Your task to perform on an android device: snooze an email in the gmail app Image 0: 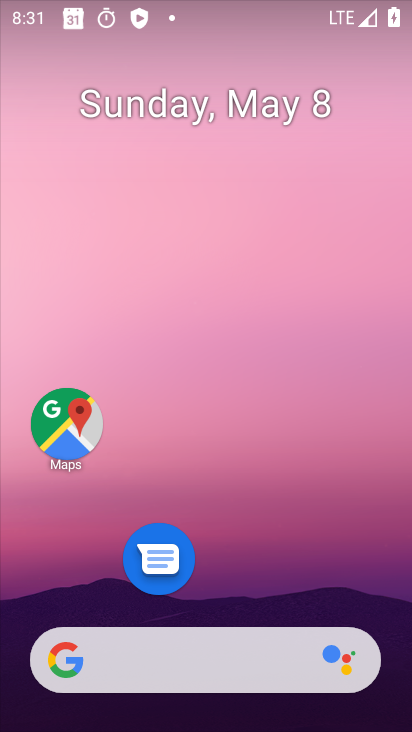
Step 0: click (411, 563)
Your task to perform on an android device: snooze an email in the gmail app Image 1: 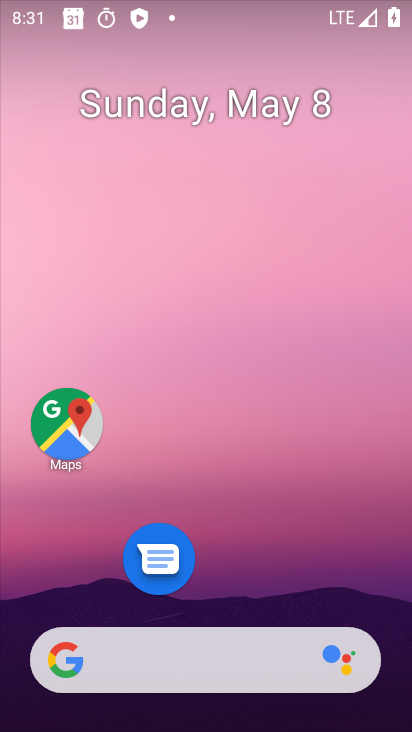
Step 1: drag from (339, 667) to (308, 3)
Your task to perform on an android device: snooze an email in the gmail app Image 2: 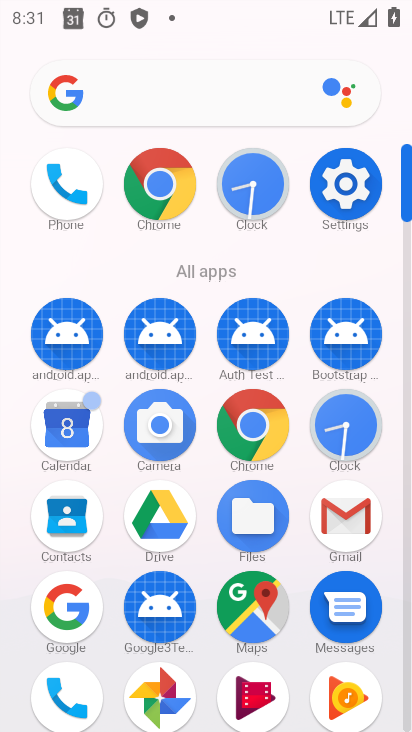
Step 2: click (365, 520)
Your task to perform on an android device: snooze an email in the gmail app Image 3: 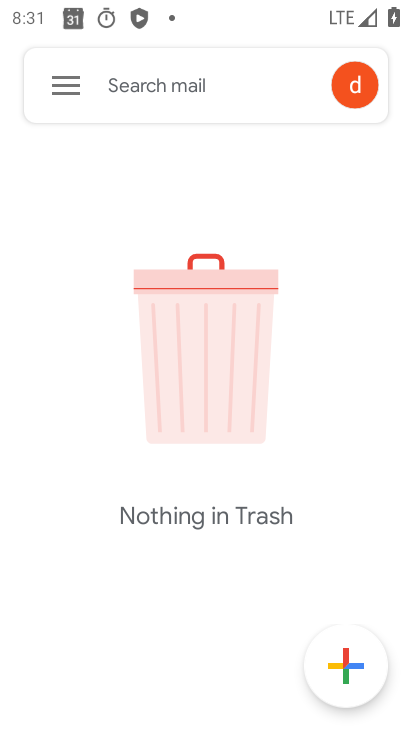
Step 3: click (69, 86)
Your task to perform on an android device: snooze an email in the gmail app Image 4: 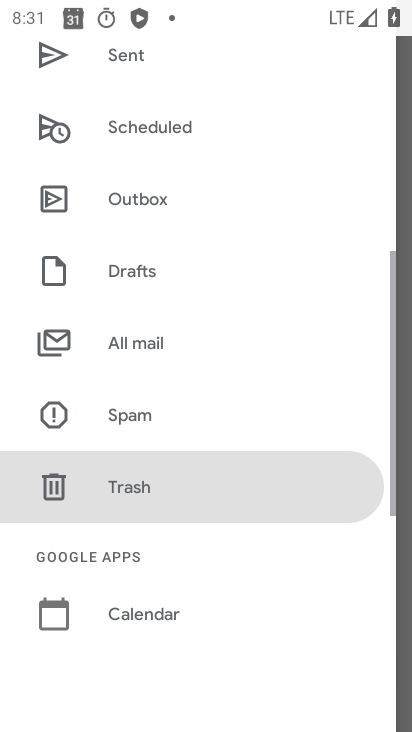
Step 4: drag from (160, 75) to (312, 670)
Your task to perform on an android device: snooze an email in the gmail app Image 5: 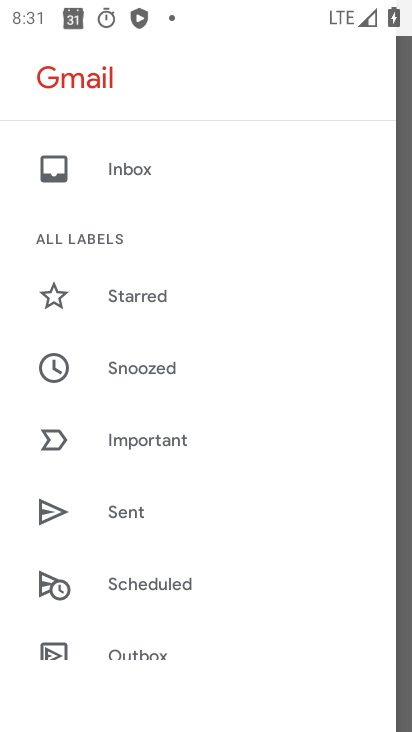
Step 5: click (192, 186)
Your task to perform on an android device: snooze an email in the gmail app Image 6: 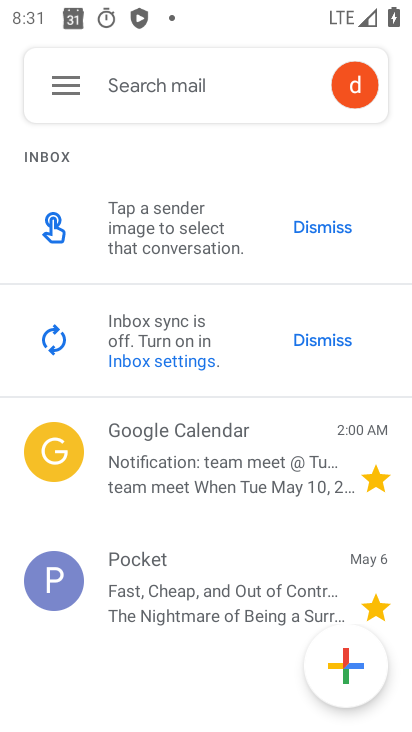
Step 6: click (247, 473)
Your task to perform on an android device: snooze an email in the gmail app Image 7: 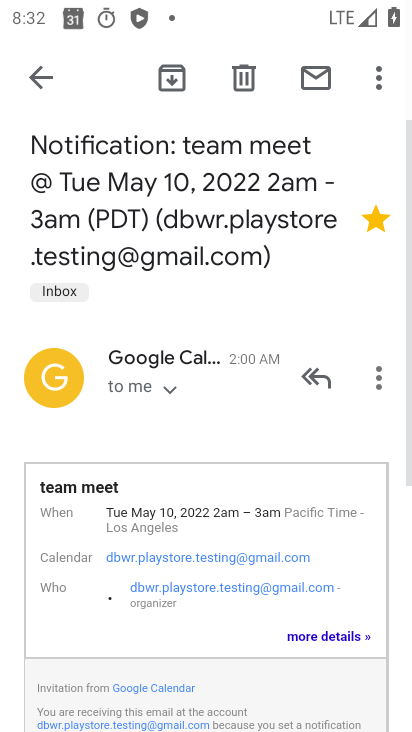
Step 7: click (372, 71)
Your task to perform on an android device: snooze an email in the gmail app Image 8: 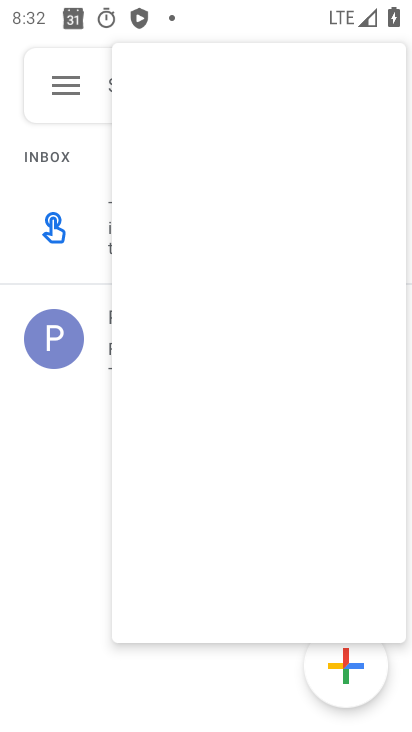
Step 8: click (53, 488)
Your task to perform on an android device: snooze an email in the gmail app Image 9: 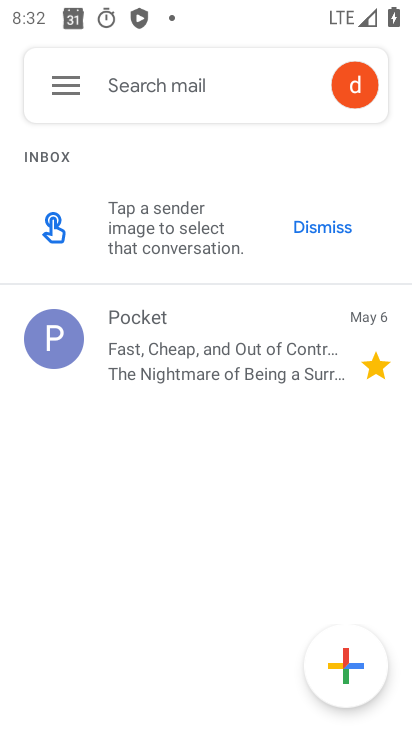
Step 9: click (247, 360)
Your task to perform on an android device: snooze an email in the gmail app Image 10: 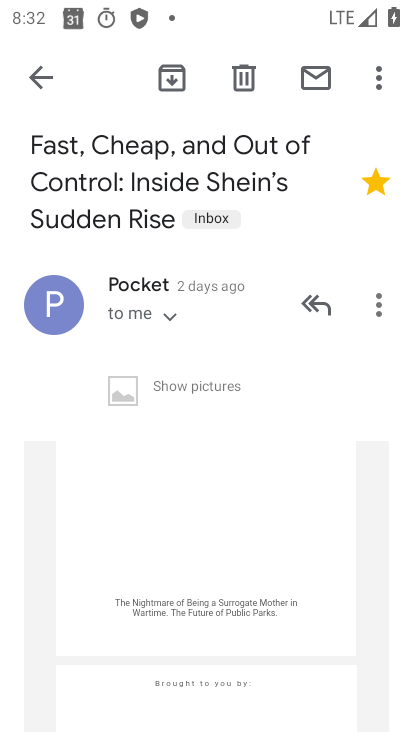
Step 10: click (372, 73)
Your task to perform on an android device: snooze an email in the gmail app Image 11: 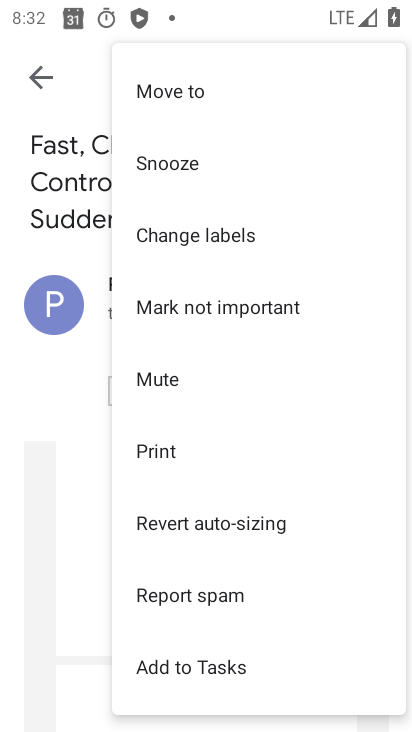
Step 11: click (234, 174)
Your task to perform on an android device: snooze an email in the gmail app Image 12: 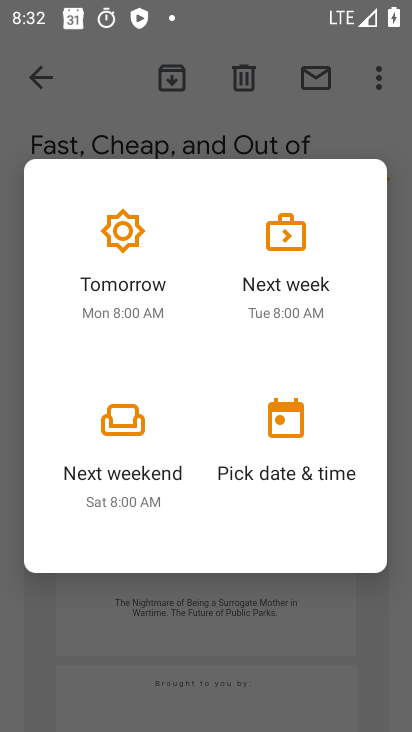
Step 12: click (116, 263)
Your task to perform on an android device: snooze an email in the gmail app Image 13: 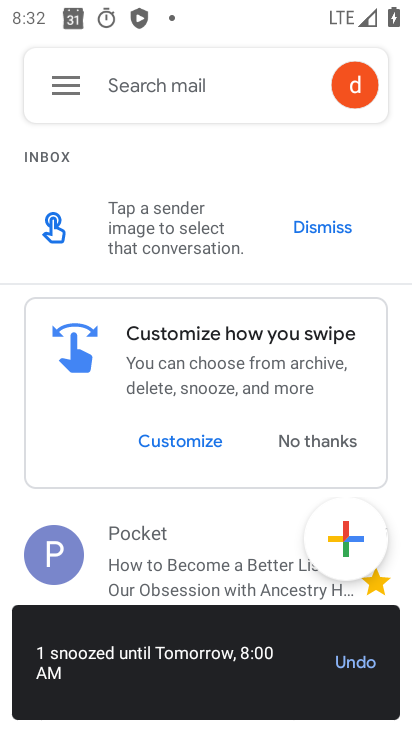
Step 13: task complete